Your task to perform on an android device: see tabs open on other devices in the chrome app Image 0: 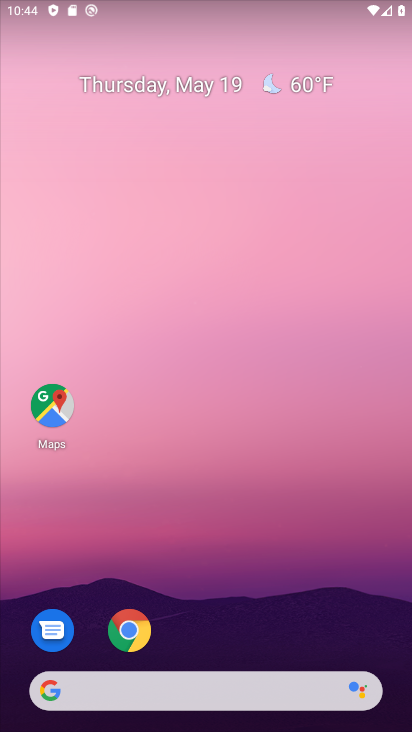
Step 0: click (260, 644)
Your task to perform on an android device: see tabs open on other devices in the chrome app Image 1: 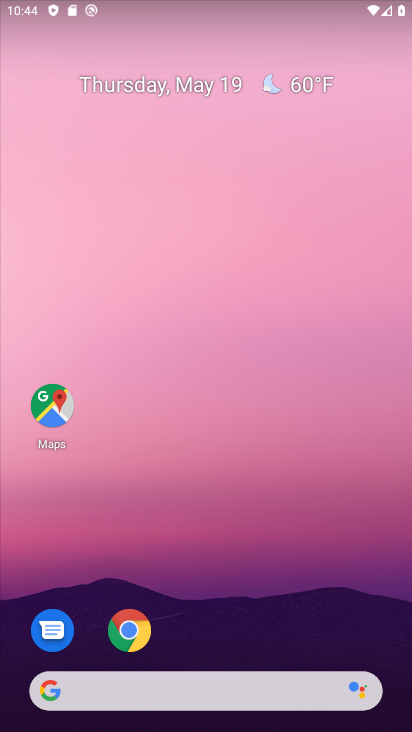
Step 1: click (133, 632)
Your task to perform on an android device: see tabs open on other devices in the chrome app Image 2: 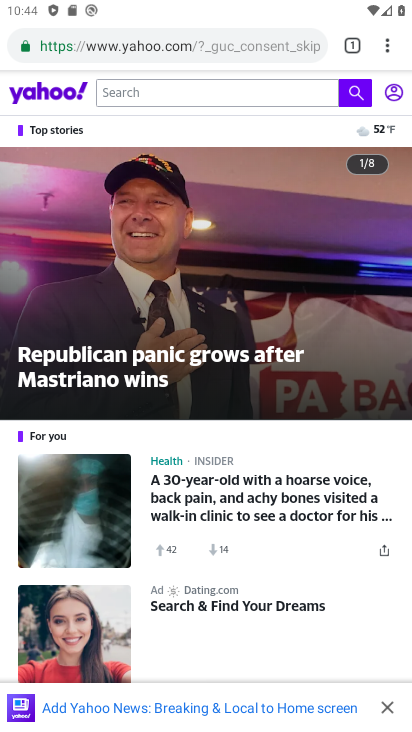
Step 2: click (399, 59)
Your task to perform on an android device: see tabs open on other devices in the chrome app Image 3: 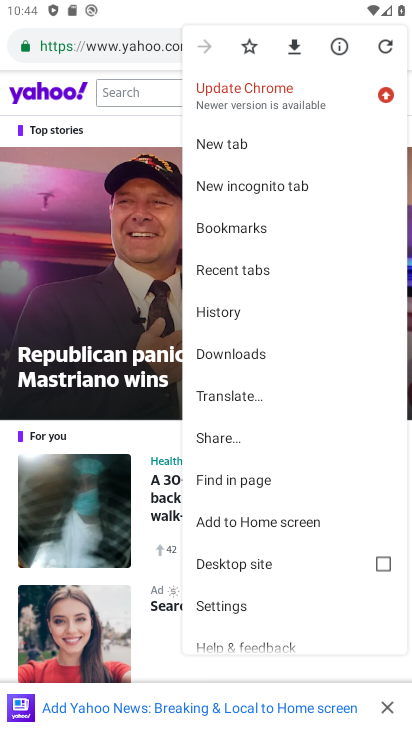
Step 3: click (295, 271)
Your task to perform on an android device: see tabs open on other devices in the chrome app Image 4: 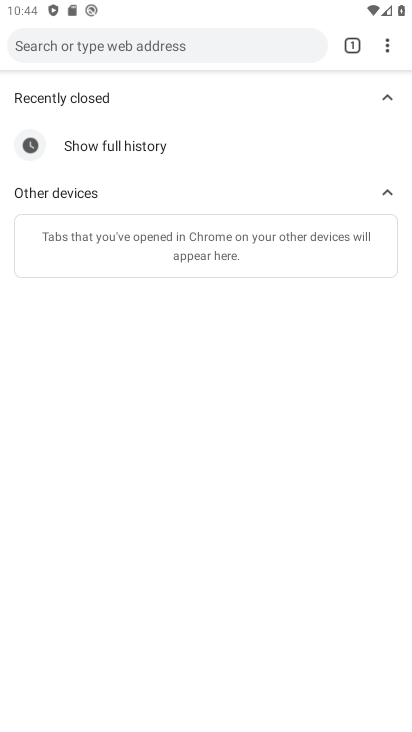
Step 4: task complete